Your task to perform on an android device: turn on airplane mode Image 0: 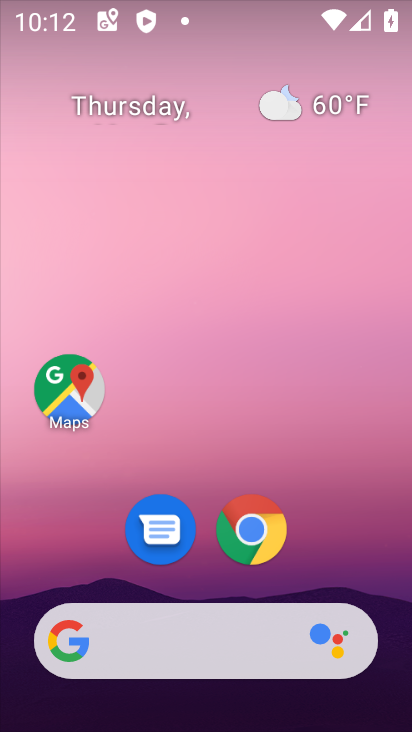
Step 0: drag from (321, 638) to (140, 18)
Your task to perform on an android device: turn on airplane mode Image 1: 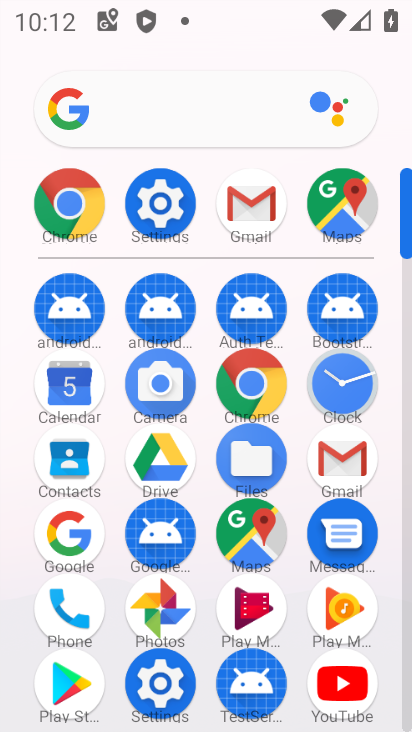
Step 1: click (155, 207)
Your task to perform on an android device: turn on airplane mode Image 2: 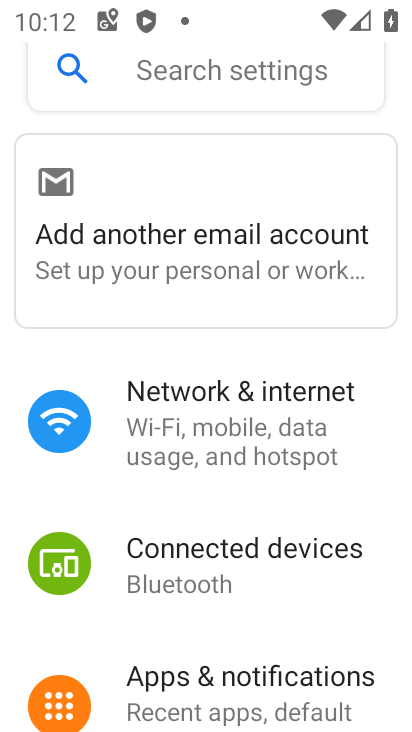
Step 2: click (213, 486)
Your task to perform on an android device: turn on airplane mode Image 3: 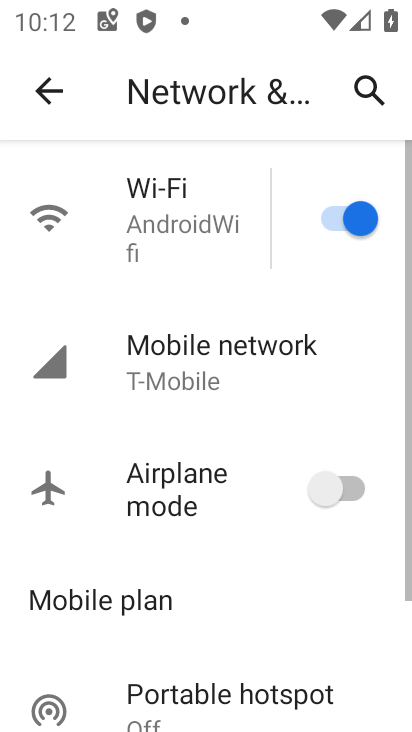
Step 3: click (48, 84)
Your task to perform on an android device: turn on airplane mode Image 4: 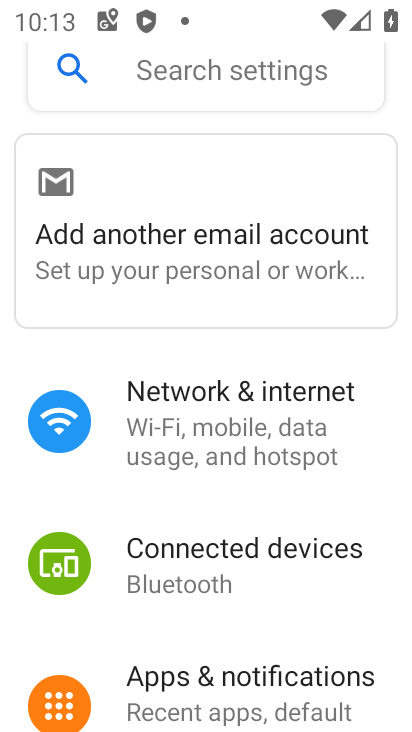
Step 4: drag from (228, 591) to (225, 376)
Your task to perform on an android device: turn on airplane mode Image 5: 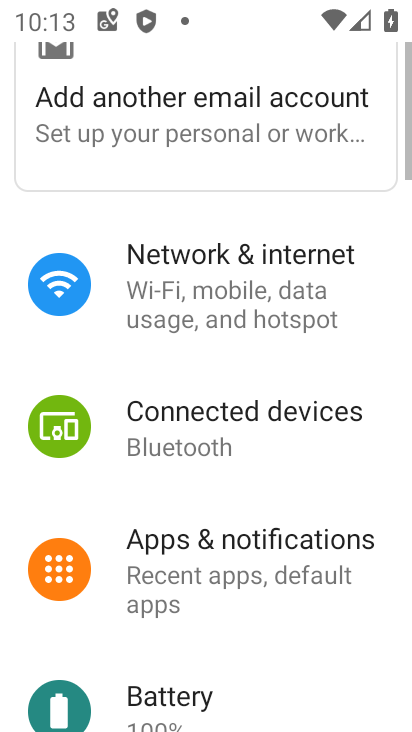
Step 5: drag from (219, 553) to (239, 227)
Your task to perform on an android device: turn on airplane mode Image 6: 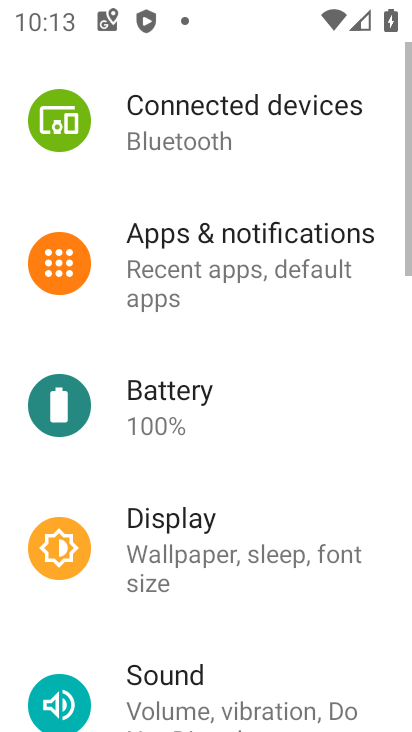
Step 6: drag from (214, 538) to (209, 217)
Your task to perform on an android device: turn on airplane mode Image 7: 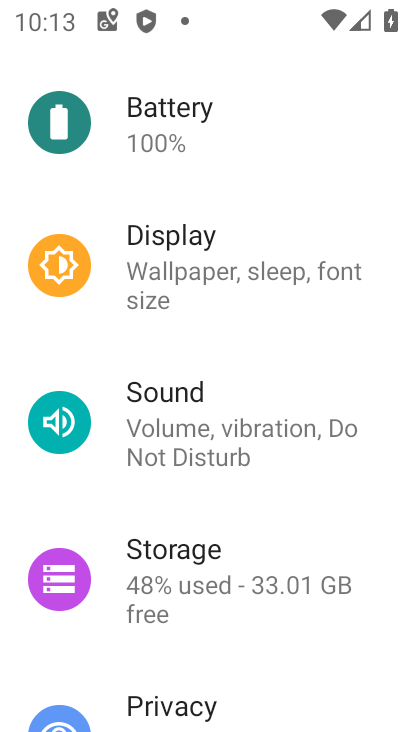
Step 7: drag from (233, 586) to (181, 246)
Your task to perform on an android device: turn on airplane mode Image 8: 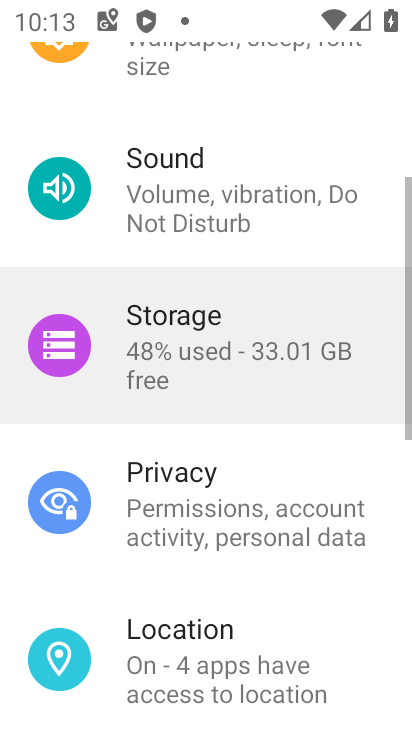
Step 8: click (186, 254)
Your task to perform on an android device: turn on airplane mode Image 9: 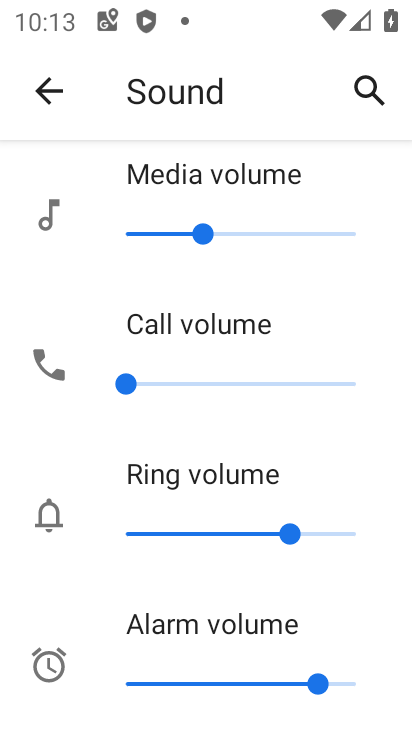
Step 9: click (46, 93)
Your task to perform on an android device: turn on airplane mode Image 10: 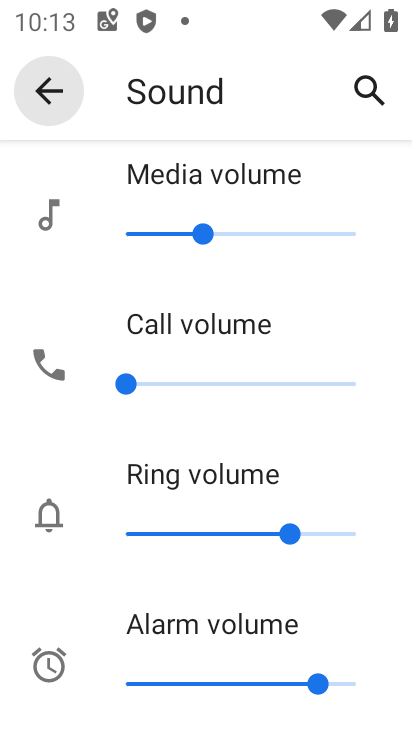
Step 10: click (45, 94)
Your task to perform on an android device: turn on airplane mode Image 11: 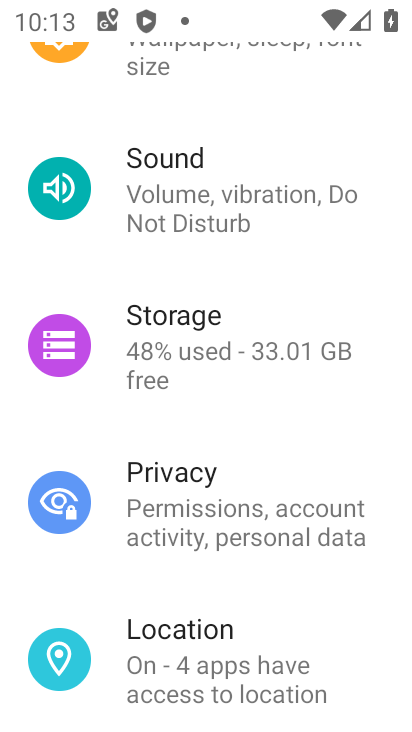
Step 11: drag from (149, 546) to (142, 46)
Your task to perform on an android device: turn on airplane mode Image 12: 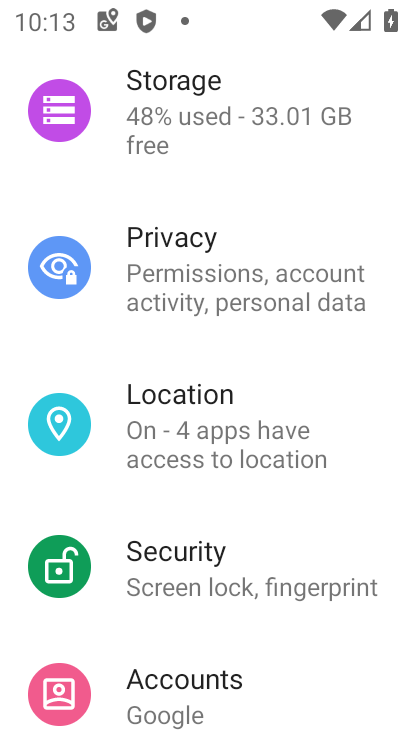
Step 12: click (165, 405)
Your task to perform on an android device: turn on airplane mode Image 13: 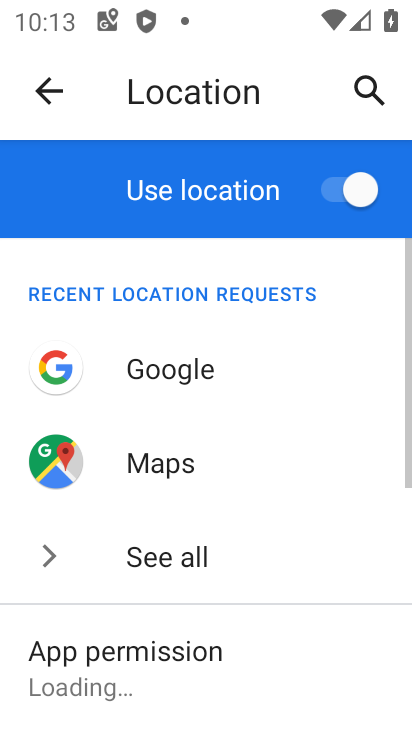
Step 13: click (38, 84)
Your task to perform on an android device: turn on airplane mode Image 14: 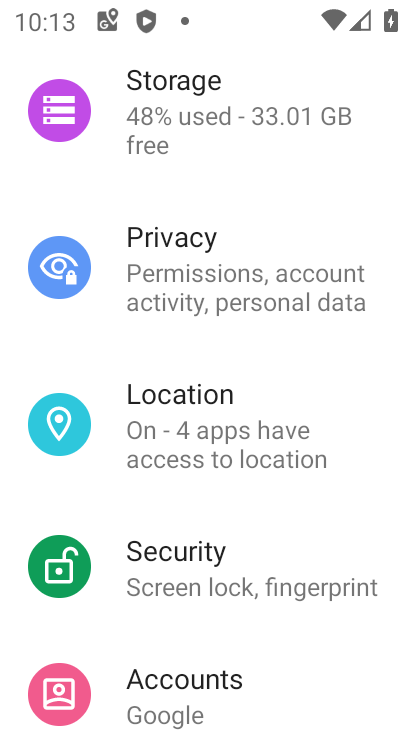
Step 14: drag from (224, 280) to (303, 561)
Your task to perform on an android device: turn on airplane mode Image 15: 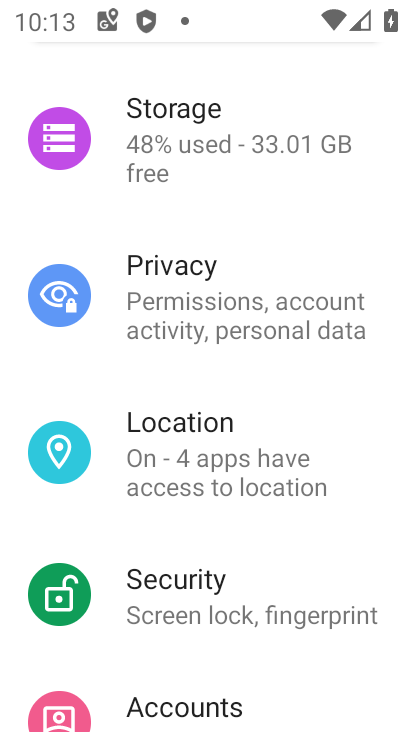
Step 15: drag from (186, 202) to (287, 631)
Your task to perform on an android device: turn on airplane mode Image 16: 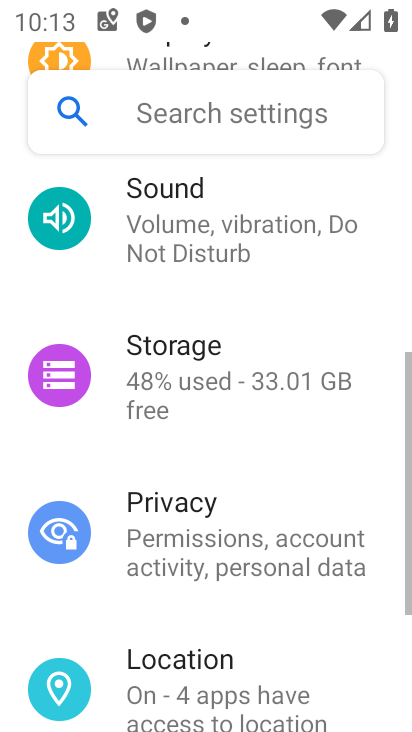
Step 16: drag from (197, 224) to (283, 488)
Your task to perform on an android device: turn on airplane mode Image 17: 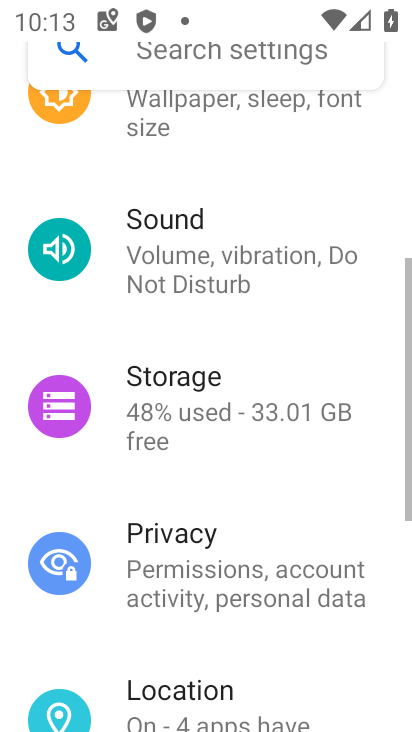
Step 17: drag from (171, 208) to (207, 421)
Your task to perform on an android device: turn on airplane mode Image 18: 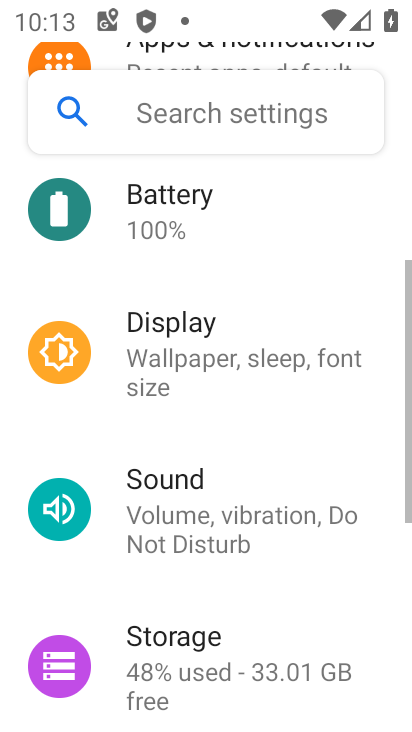
Step 18: drag from (157, 277) to (221, 450)
Your task to perform on an android device: turn on airplane mode Image 19: 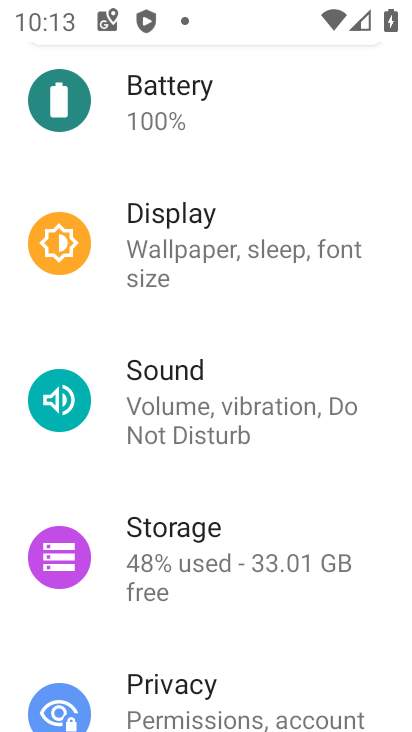
Step 19: drag from (155, 213) to (272, 520)
Your task to perform on an android device: turn on airplane mode Image 20: 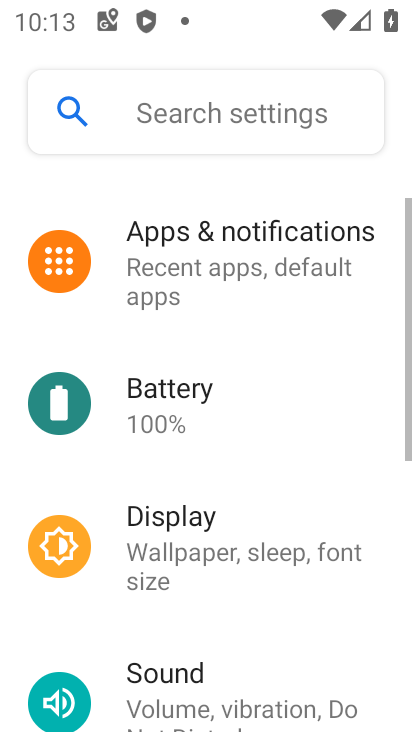
Step 20: drag from (224, 240) to (298, 538)
Your task to perform on an android device: turn on airplane mode Image 21: 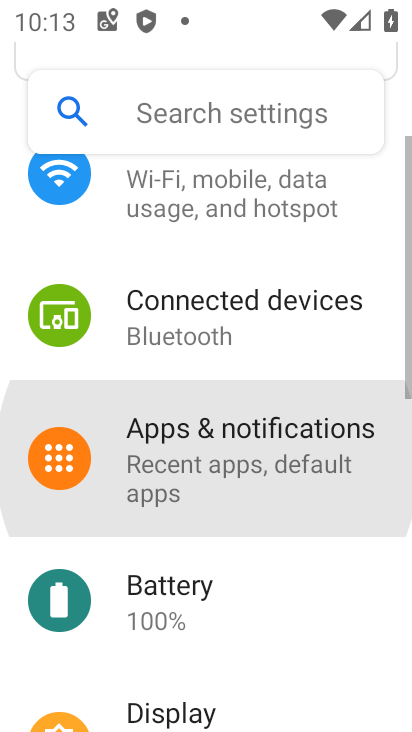
Step 21: drag from (191, 250) to (348, 586)
Your task to perform on an android device: turn on airplane mode Image 22: 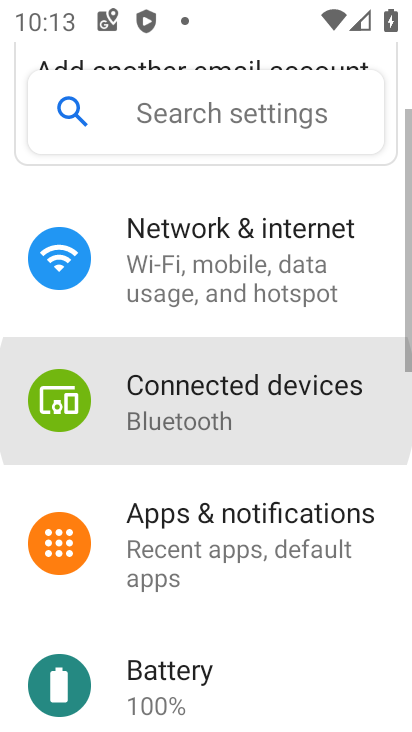
Step 22: drag from (309, 256) to (348, 640)
Your task to perform on an android device: turn on airplane mode Image 23: 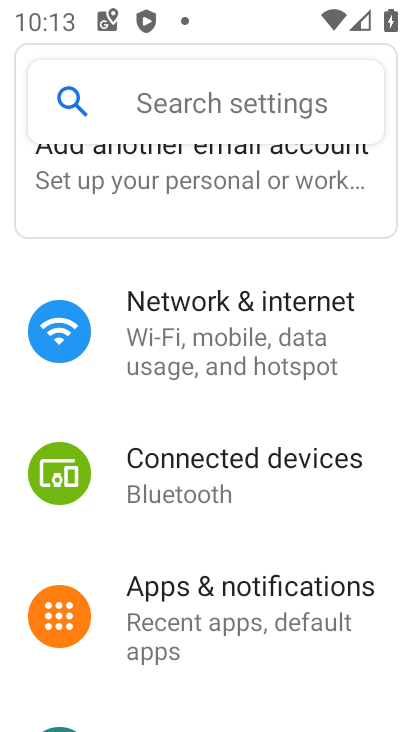
Step 23: click (229, 353)
Your task to perform on an android device: turn on airplane mode Image 24: 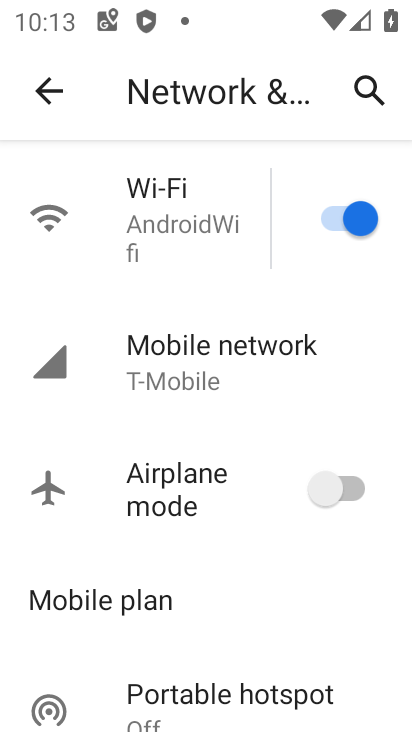
Step 24: click (318, 492)
Your task to perform on an android device: turn on airplane mode Image 25: 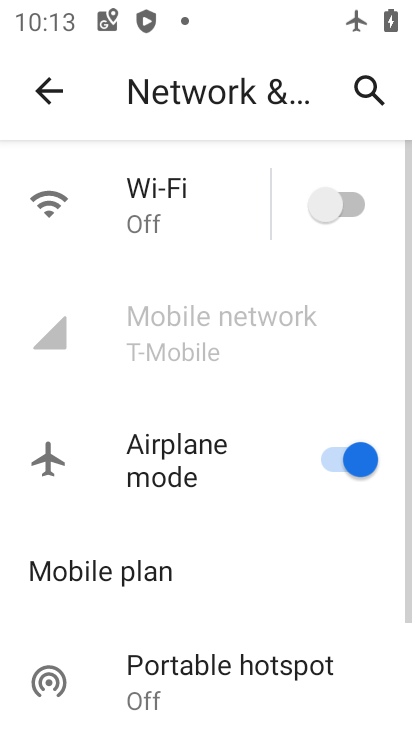
Step 25: task complete